Your task to perform on an android device: Search for razer blackwidow on newegg, select the first entry, add it to the cart, then select checkout. Image 0: 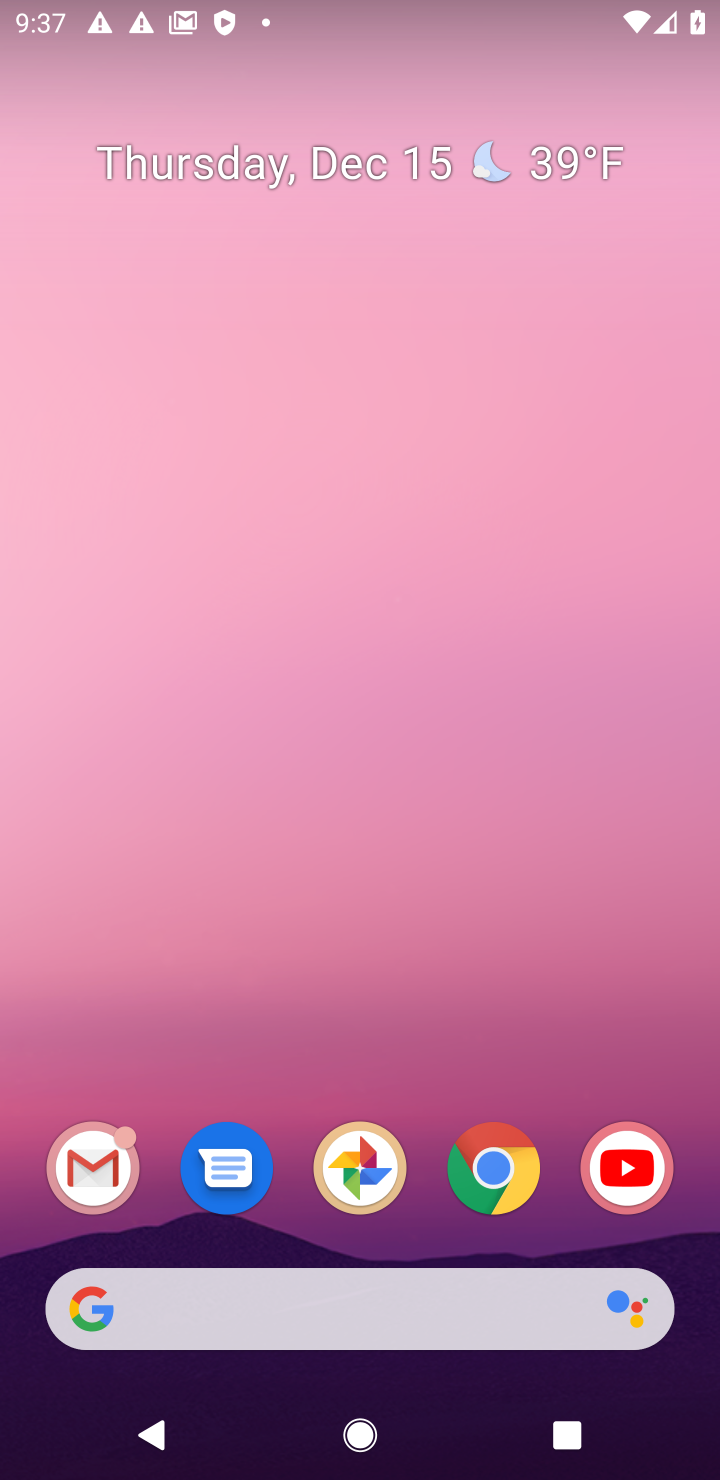
Step 0: click (497, 1157)
Your task to perform on an android device: Search for razer blackwidow on newegg, select the first entry, add it to the cart, then select checkout. Image 1: 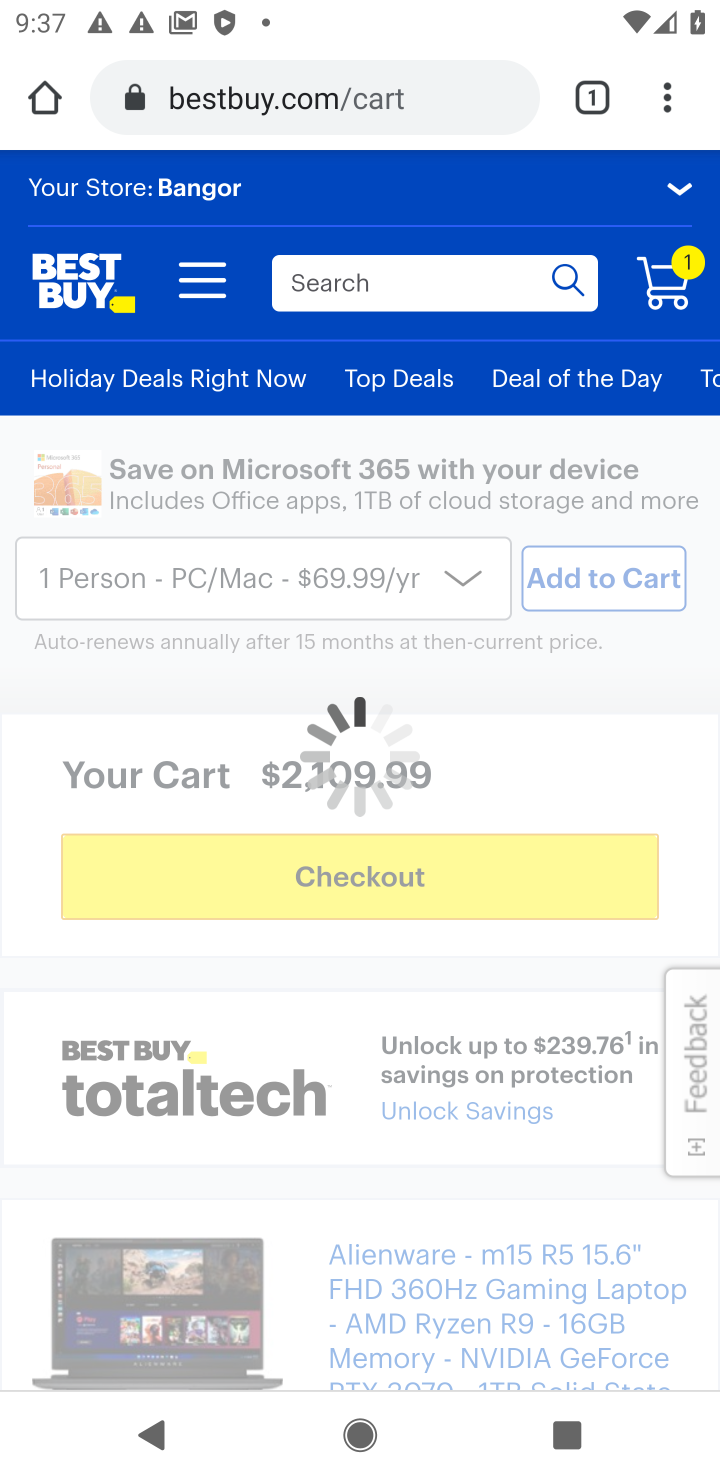
Step 1: click (471, 269)
Your task to perform on an android device: Search for razer blackwidow on newegg, select the first entry, add it to the cart, then select checkout. Image 2: 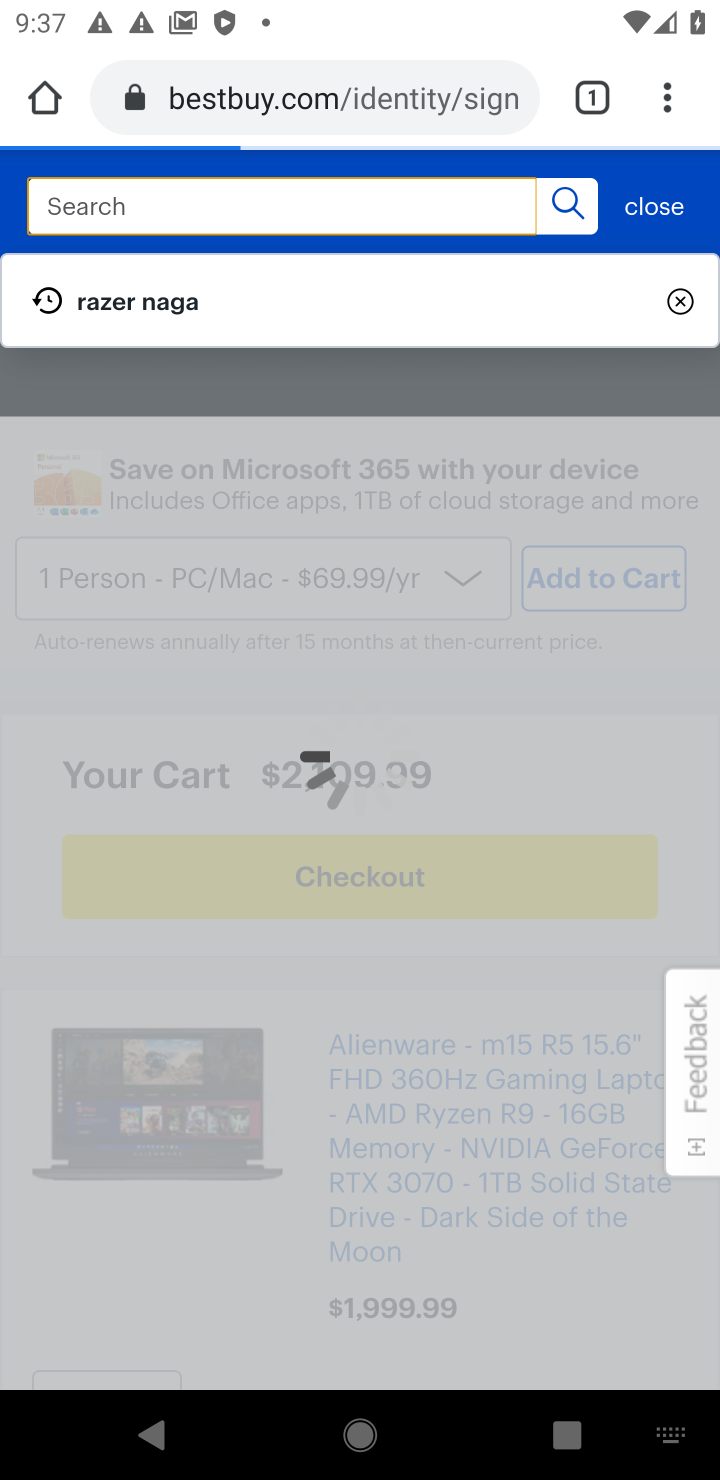
Step 2: click (363, 108)
Your task to perform on an android device: Search for razer blackwidow on newegg, select the first entry, add it to the cart, then select checkout. Image 3: 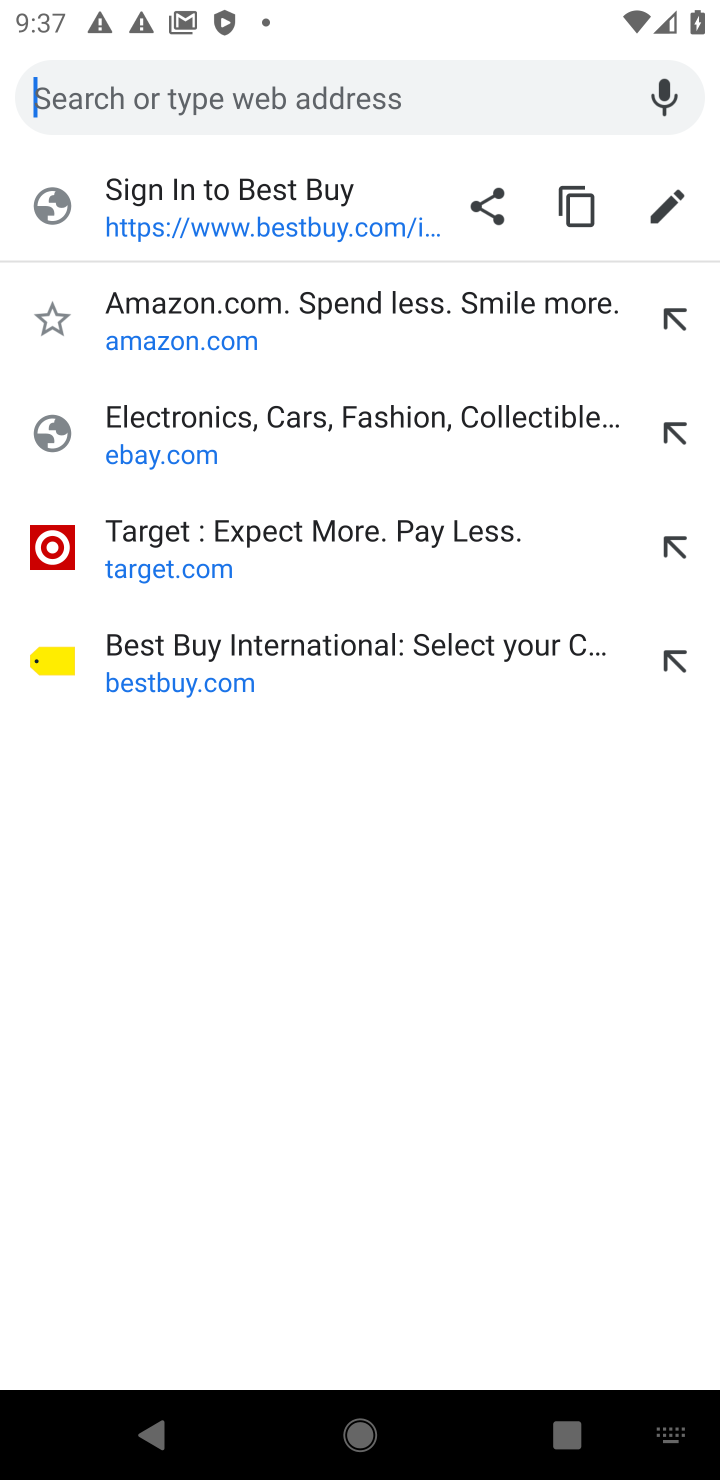
Step 3: type "NEWEGG"
Your task to perform on an android device: Search for razer blackwidow on newegg, select the first entry, add it to the cart, then select checkout. Image 4: 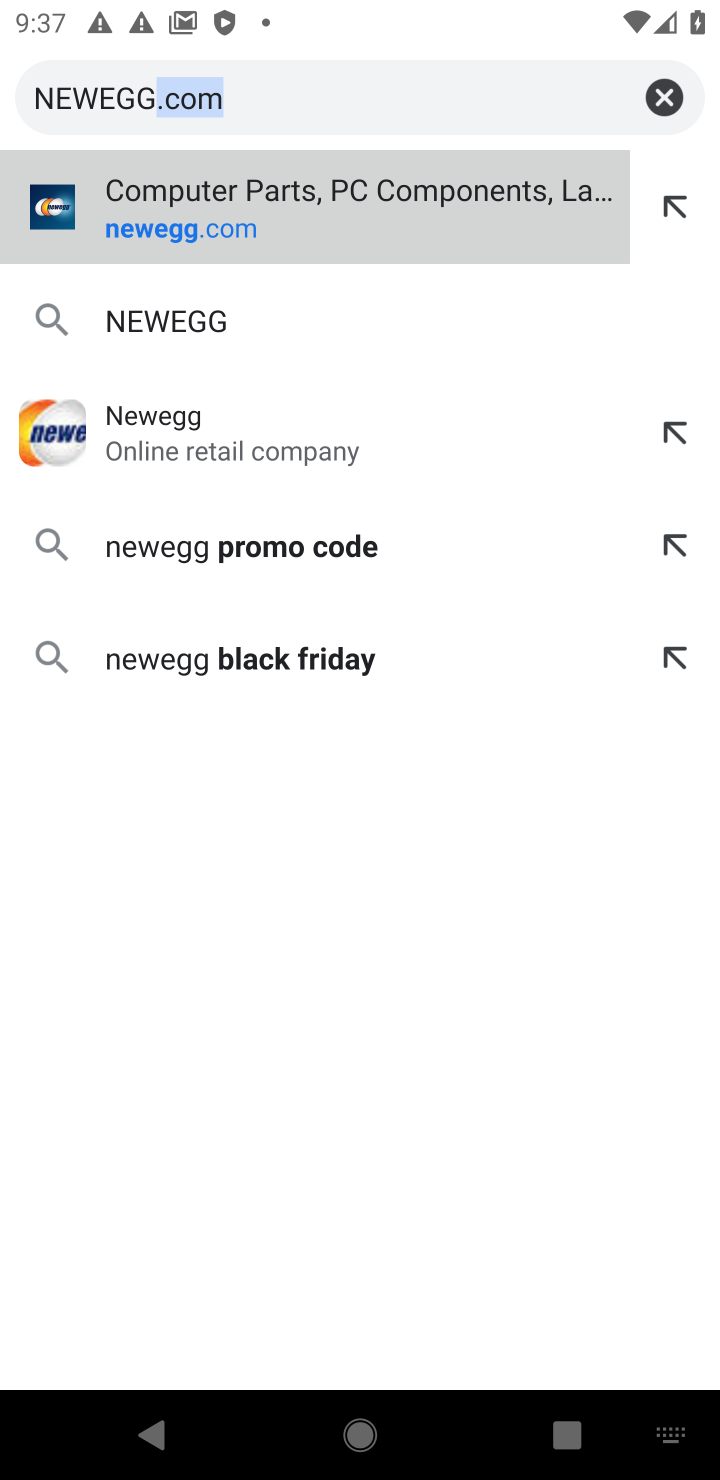
Step 4: click (308, 228)
Your task to perform on an android device: Search for razer blackwidow on newegg, select the first entry, add it to the cart, then select checkout. Image 5: 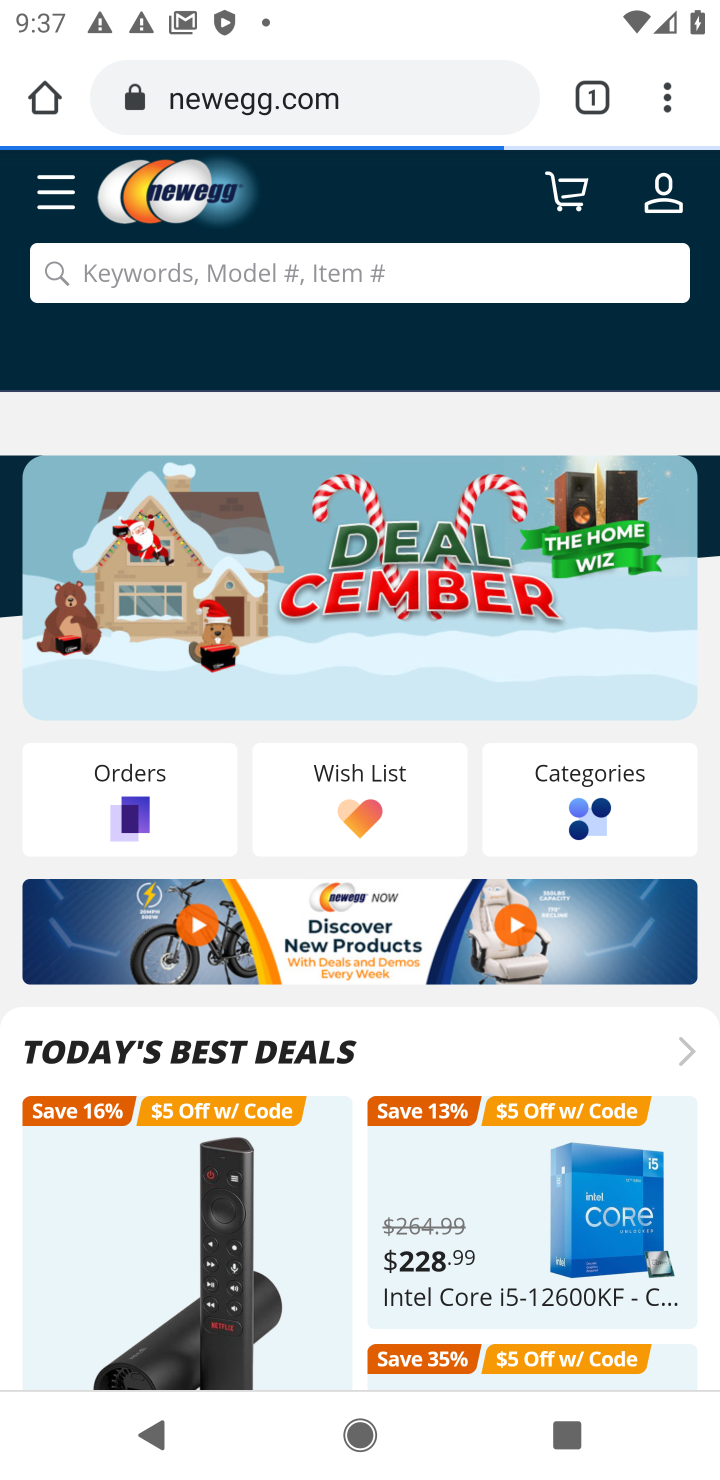
Step 5: click (242, 274)
Your task to perform on an android device: Search for razer blackwidow on newegg, select the first entry, add it to the cart, then select checkout. Image 6: 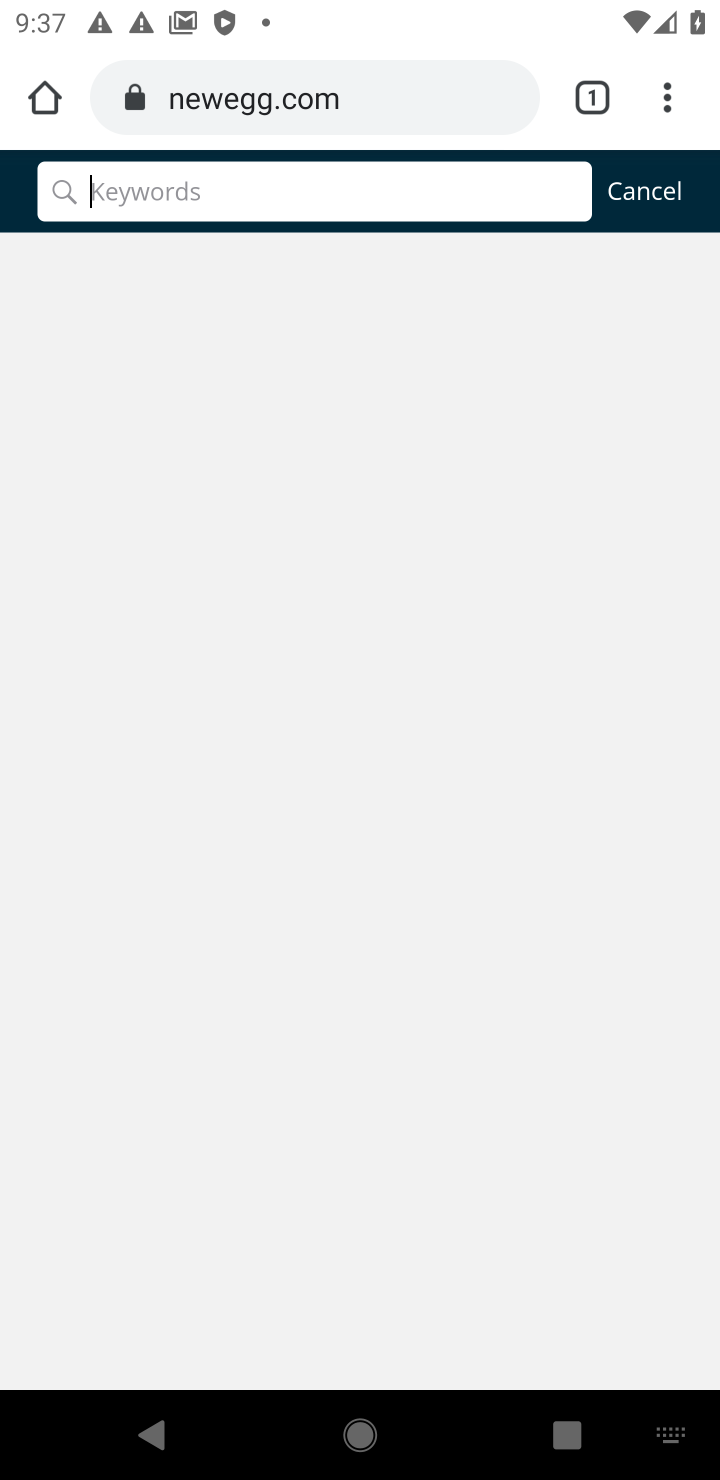
Step 6: type "razer blackwidow"
Your task to perform on an android device: Search for razer blackwidow on newegg, select the first entry, add it to the cart, then select checkout. Image 7: 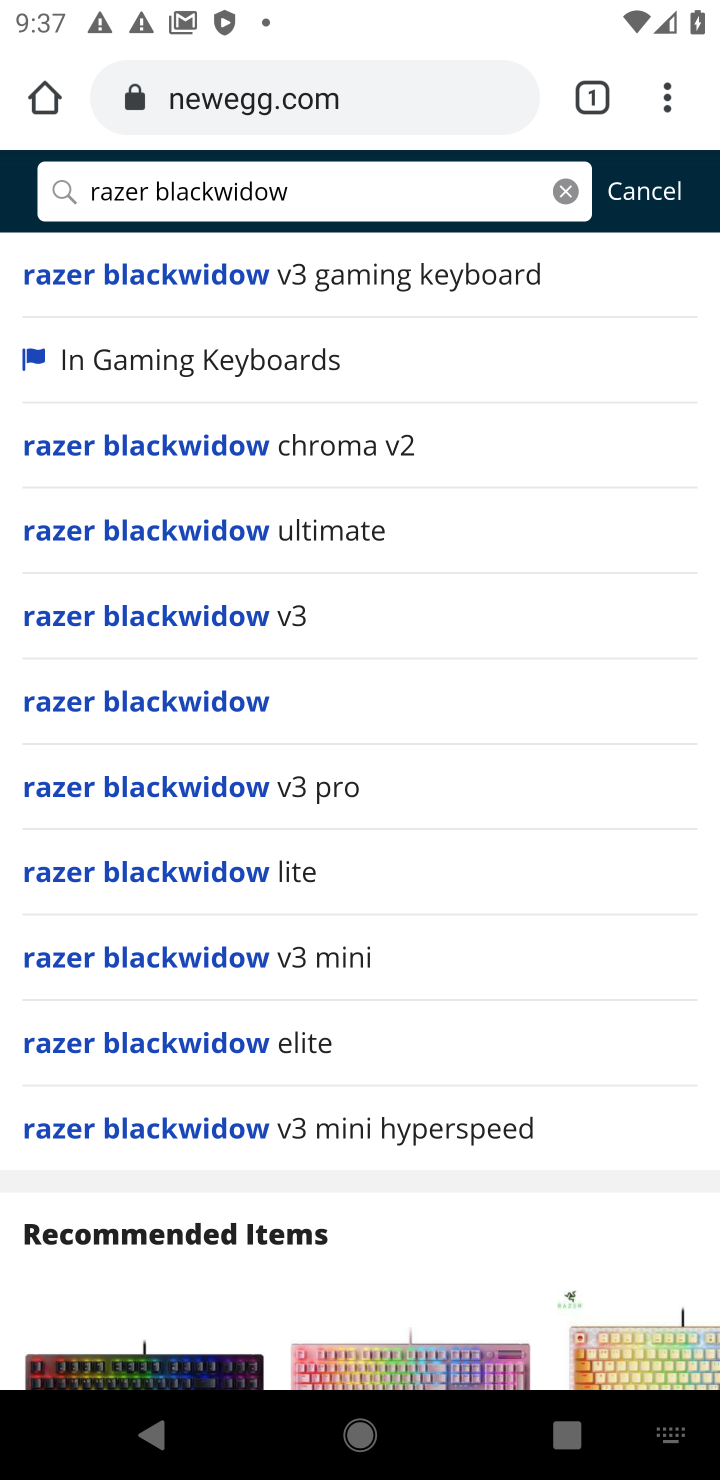
Step 7: click (238, 288)
Your task to perform on an android device: Search for razer blackwidow on newegg, select the first entry, add it to the cart, then select checkout. Image 8: 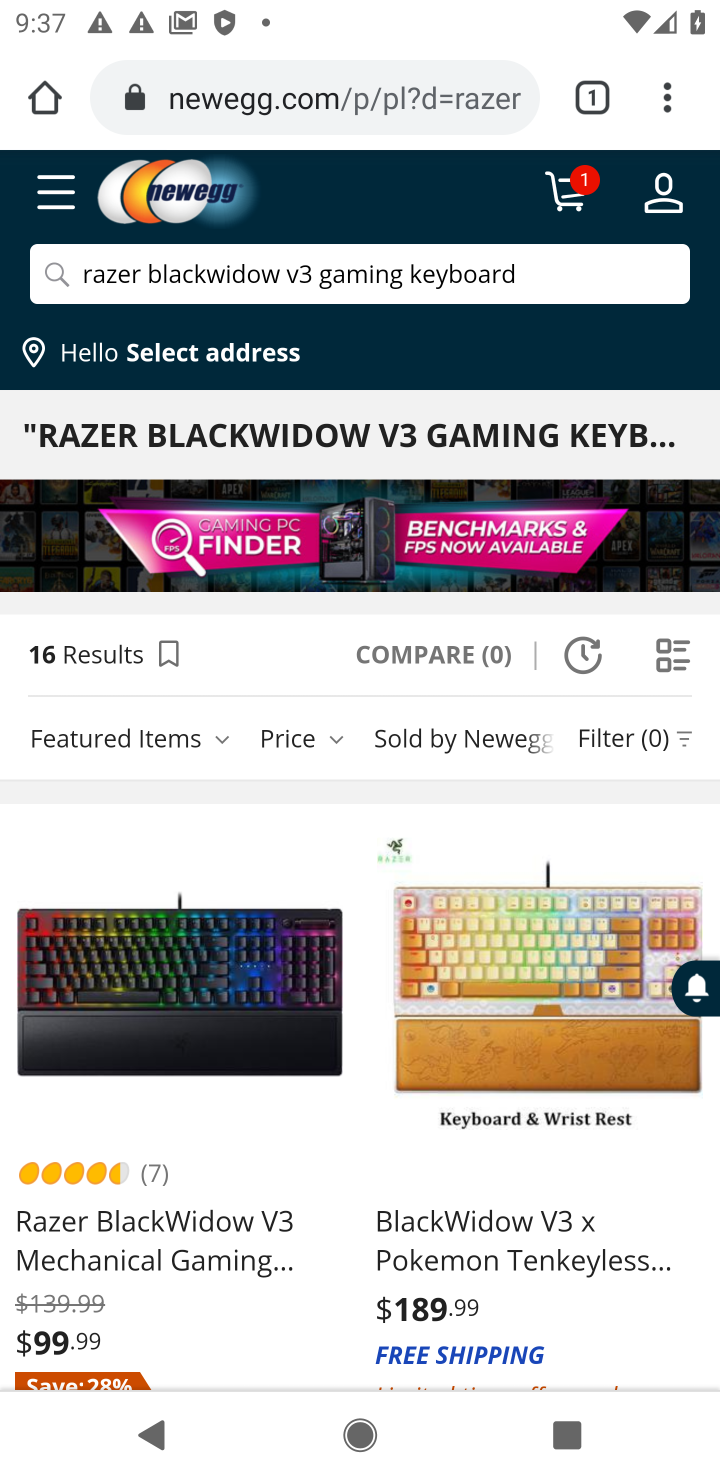
Step 8: click (245, 1024)
Your task to perform on an android device: Search for razer blackwidow on newegg, select the first entry, add it to the cart, then select checkout. Image 9: 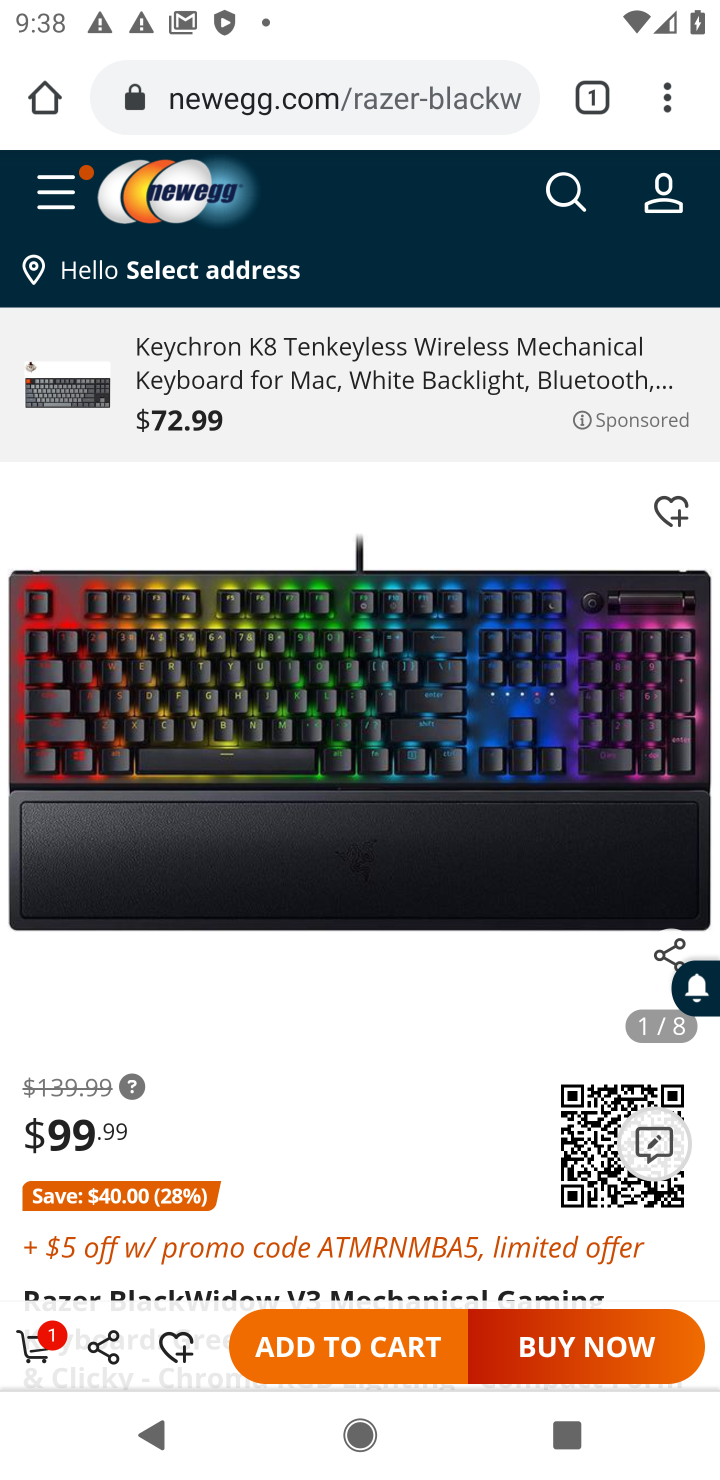
Step 9: click (341, 1345)
Your task to perform on an android device: Search for razer blackwidow on newegg, select the first entry, add it to the cart, then select checkout. Image 10: 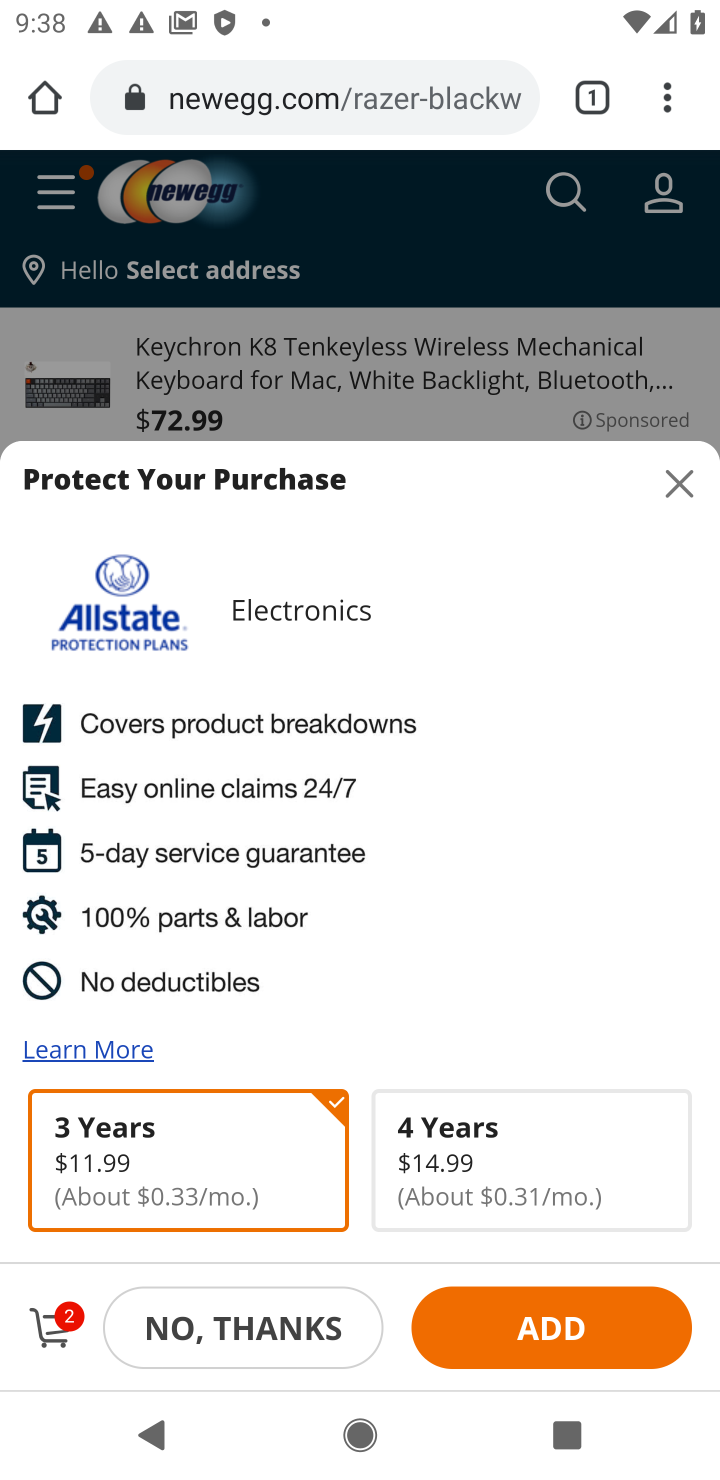
Step 10: click (61, 1319)
Your task to perform on an android device: Search for razer blackwidow on newegg, select the first entry, add it to the cart, then select checkout. Image 11: 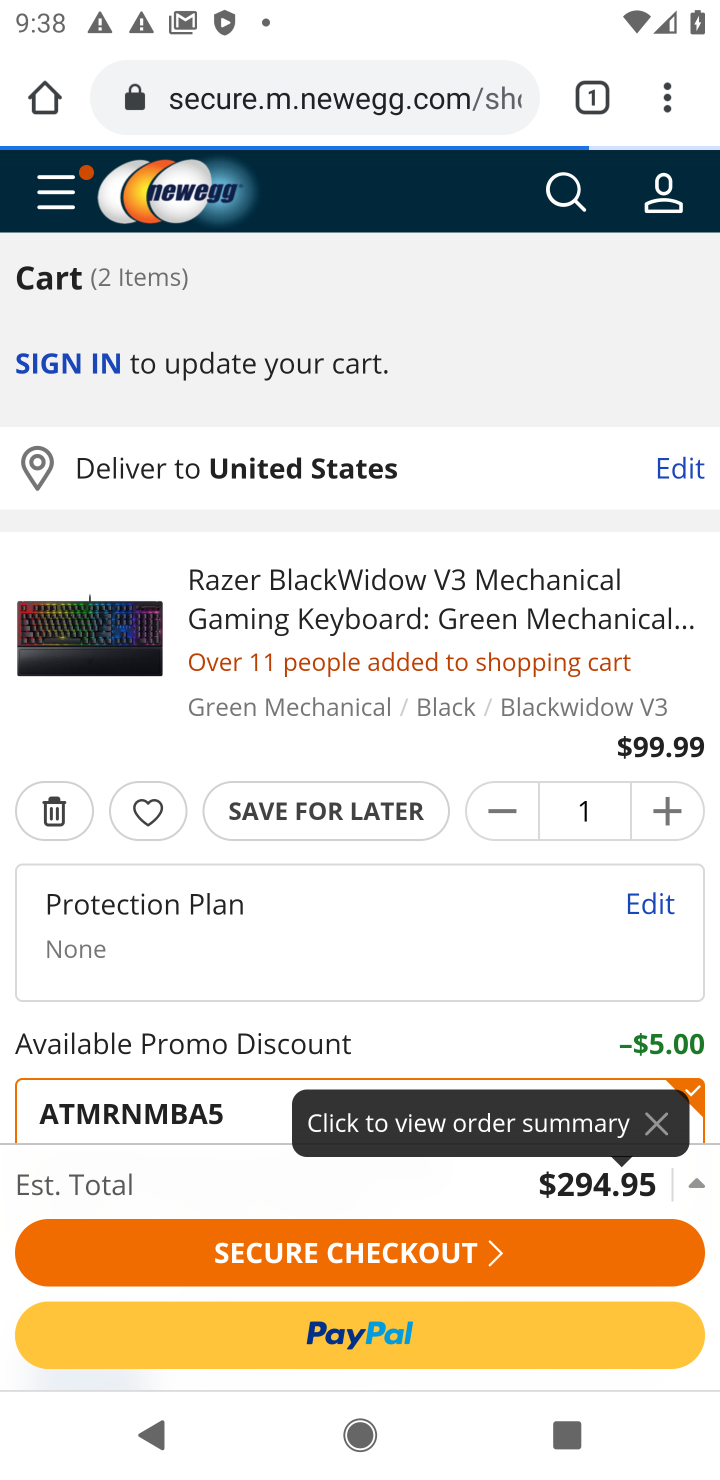
Step 11: click (320, 1326)
Your task to perform on an android device: Search for razer blackwidow on newegg, select the first entry, add it to the cart, then select checkout. Image 12: 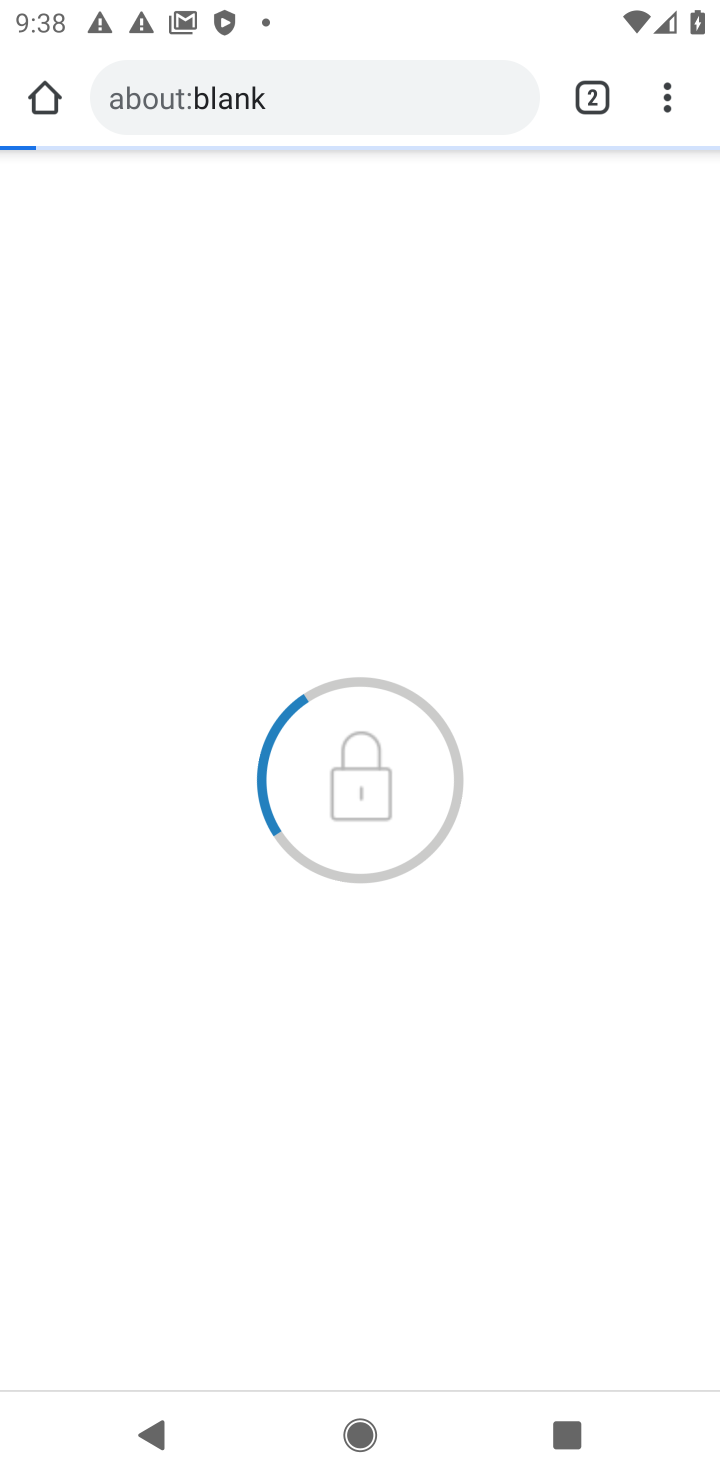
Step 12: task complete